Your task to perform on an android device: Show me the alarms in the clock app Image 0: 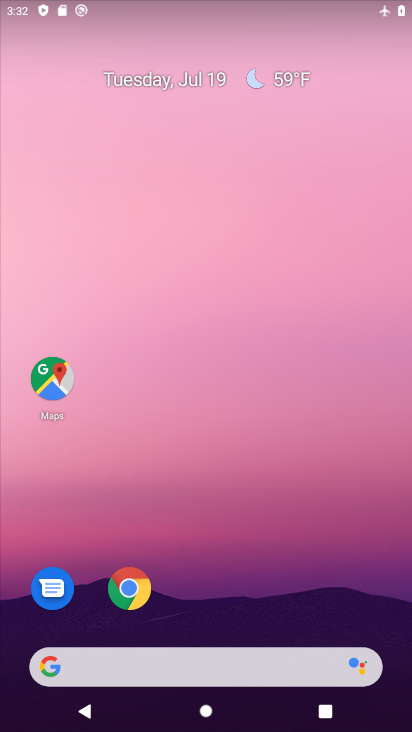
Step 0: press home button
Your task to perform on an android device: Show me the alarms in the clock app Image 1: 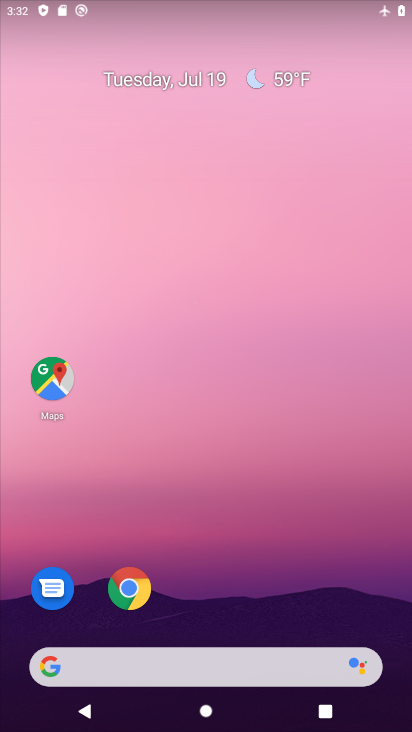
Step 1: drag from (230, 612) to (356, 143)
Your task to perform on an android device: Show me the alarms in the clock app Image 2: 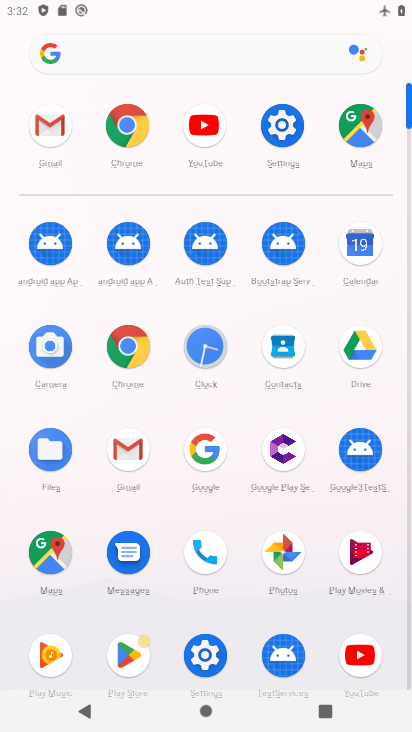
Step 2: click (199, 338)
Your task to perform on an android device: Show me the alarms in the clock app Image 3: 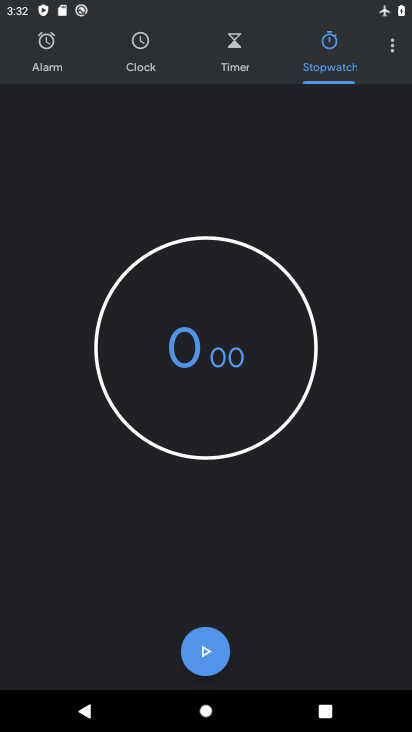
Step 3: click (38, 45)
Your task to perform on an android device: Show me the alarms in the clock app Image 4: 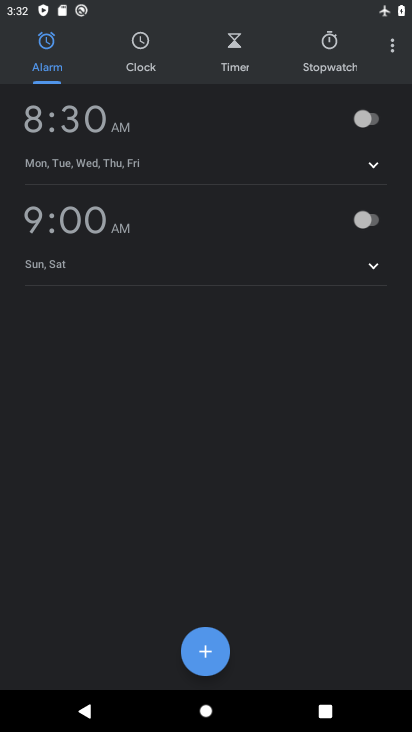
Step 4: task complete